Your task to perform on an android device: turn off picture-in-picture Image 0: 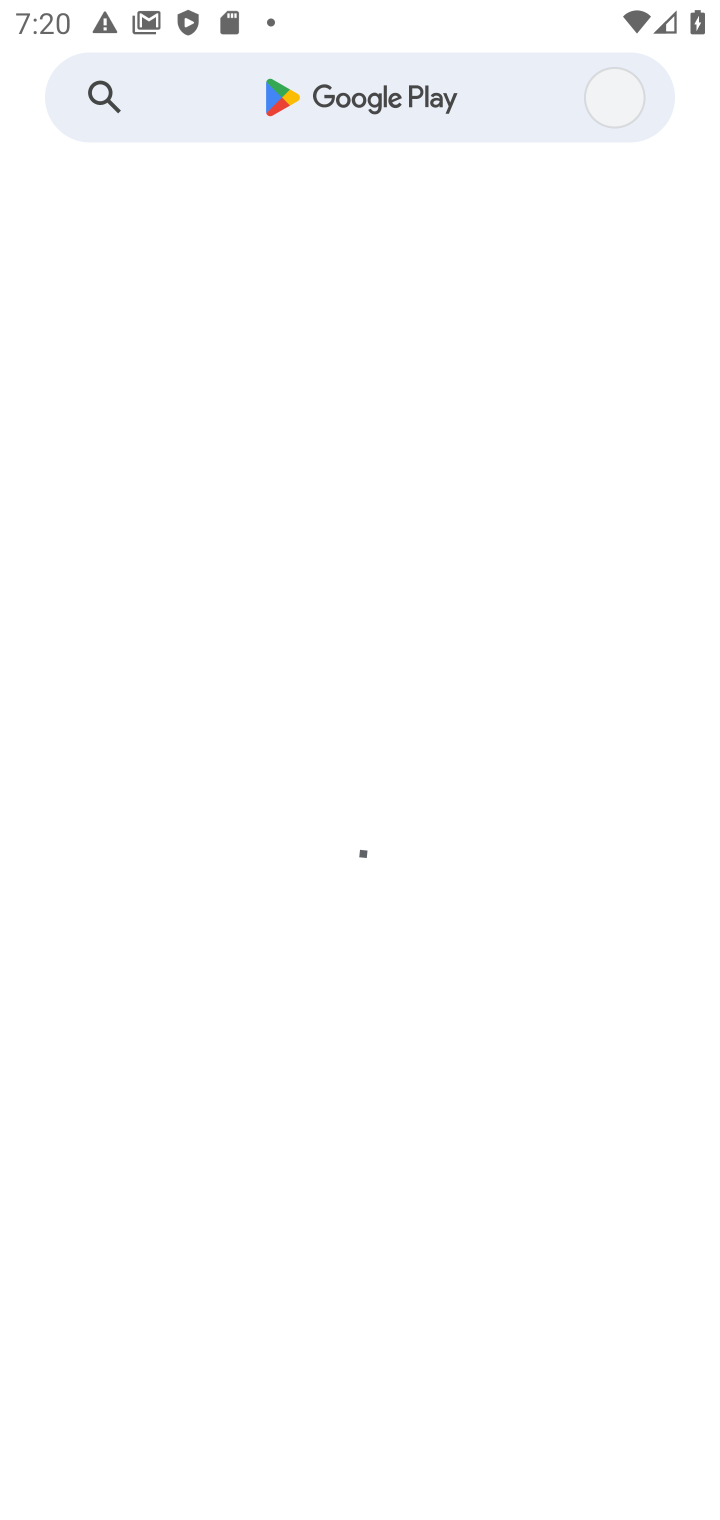
Step 0: press home button
Your task to perform on an android device: turn off picture-in-picture Image 1: 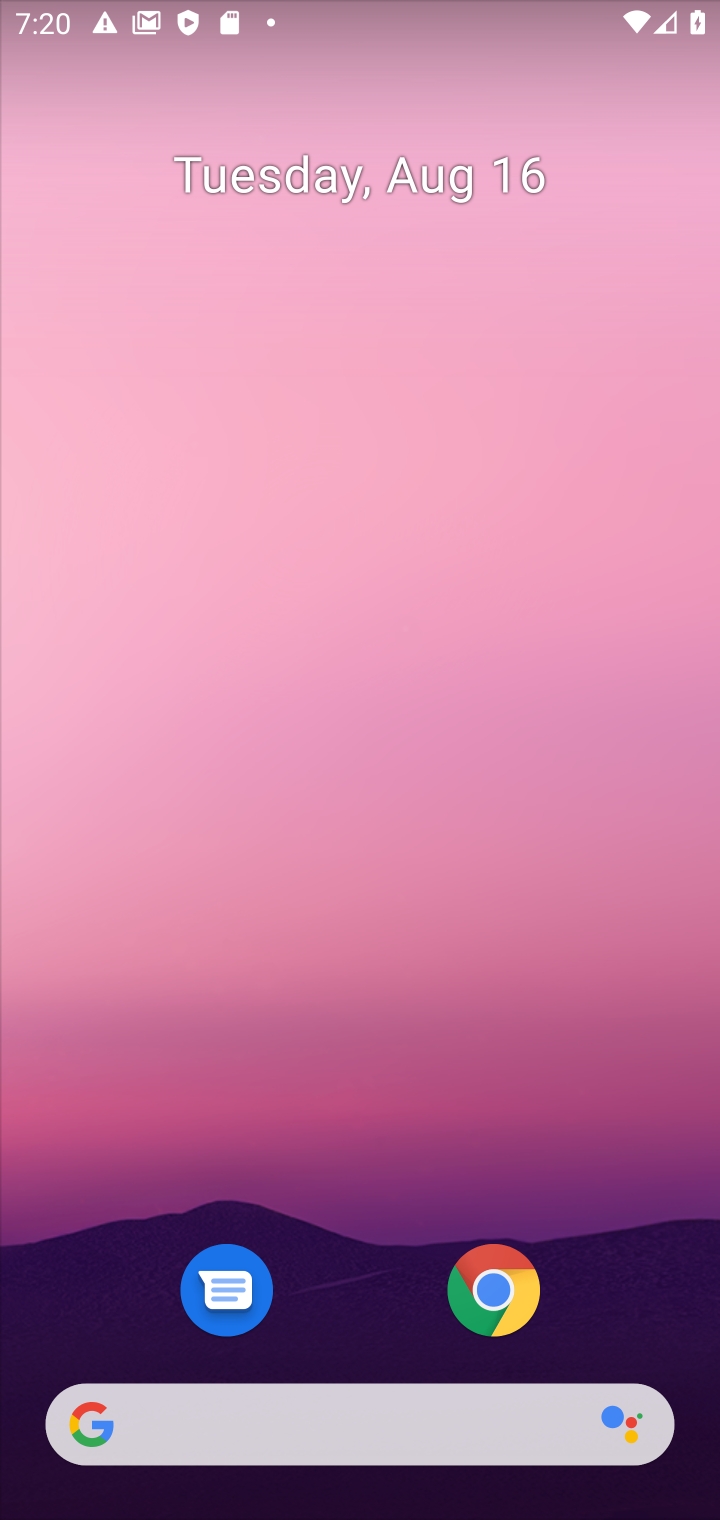
Step 1: drag from (344, 1412) to (306, 204)
Your task to perform on an android device: turn off picture-in-picture Image 2: 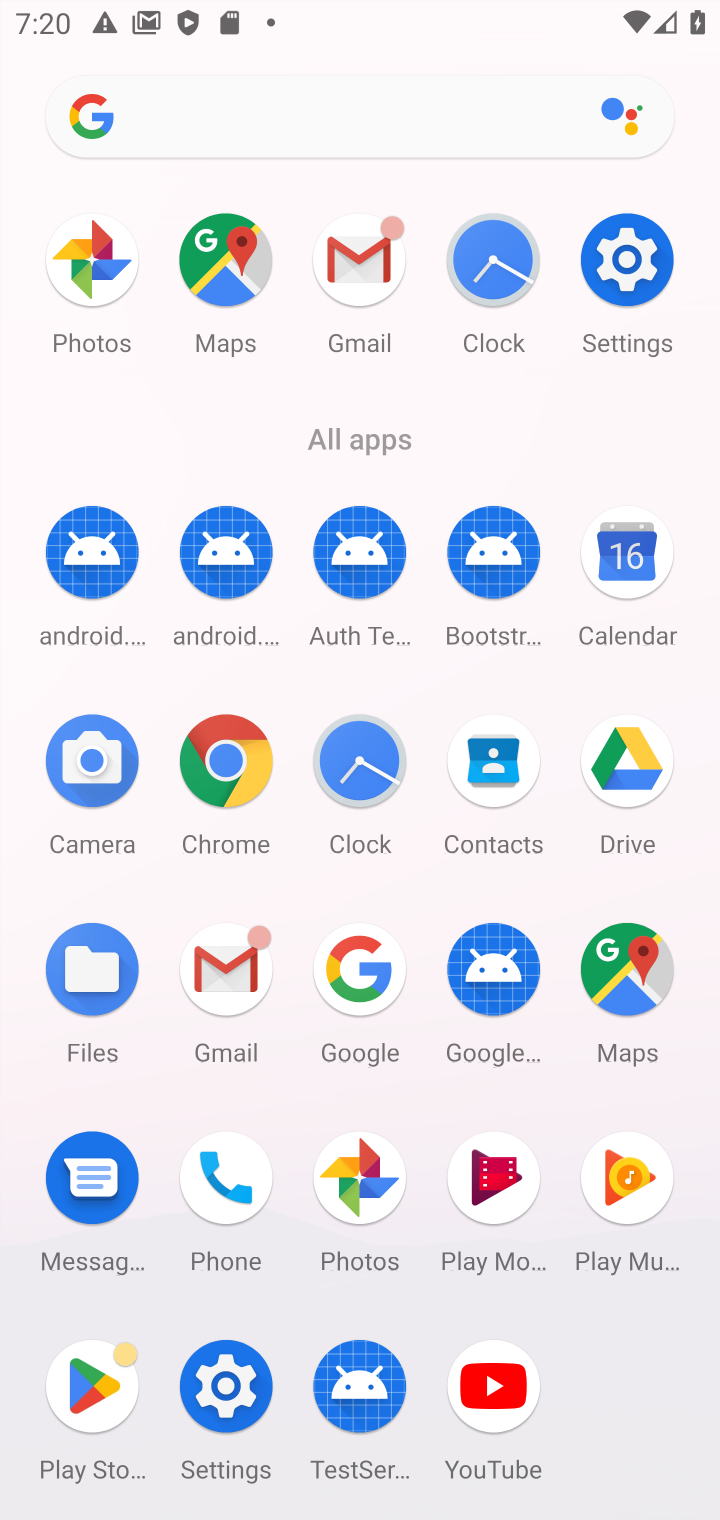
Step 2: drag from (637, 259) to (508, 879)
Your task to perform on an android device: turn off picture-in-picture Image 3: 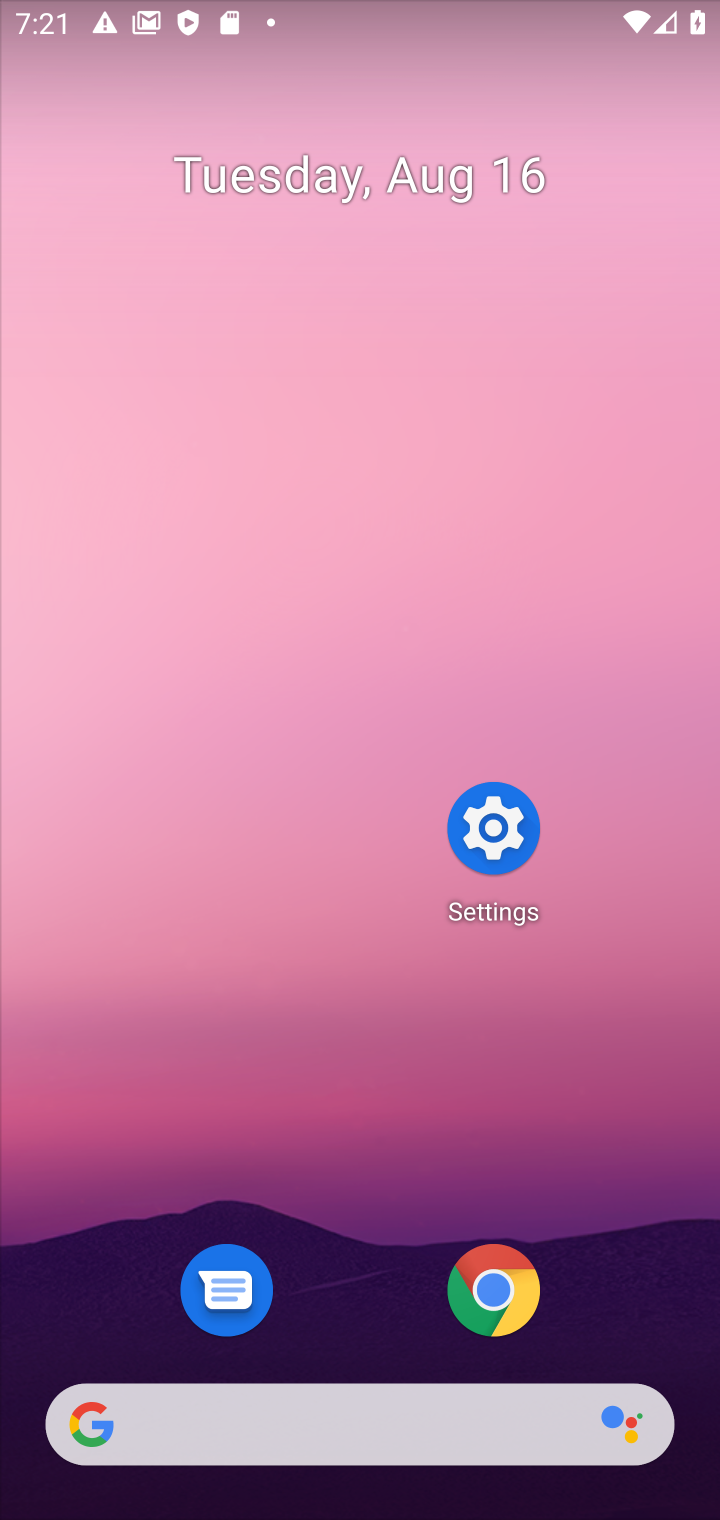
Step 3: click (485, 1274)
Your task to perform on an android device: turn off picture-in-picture Image 4: 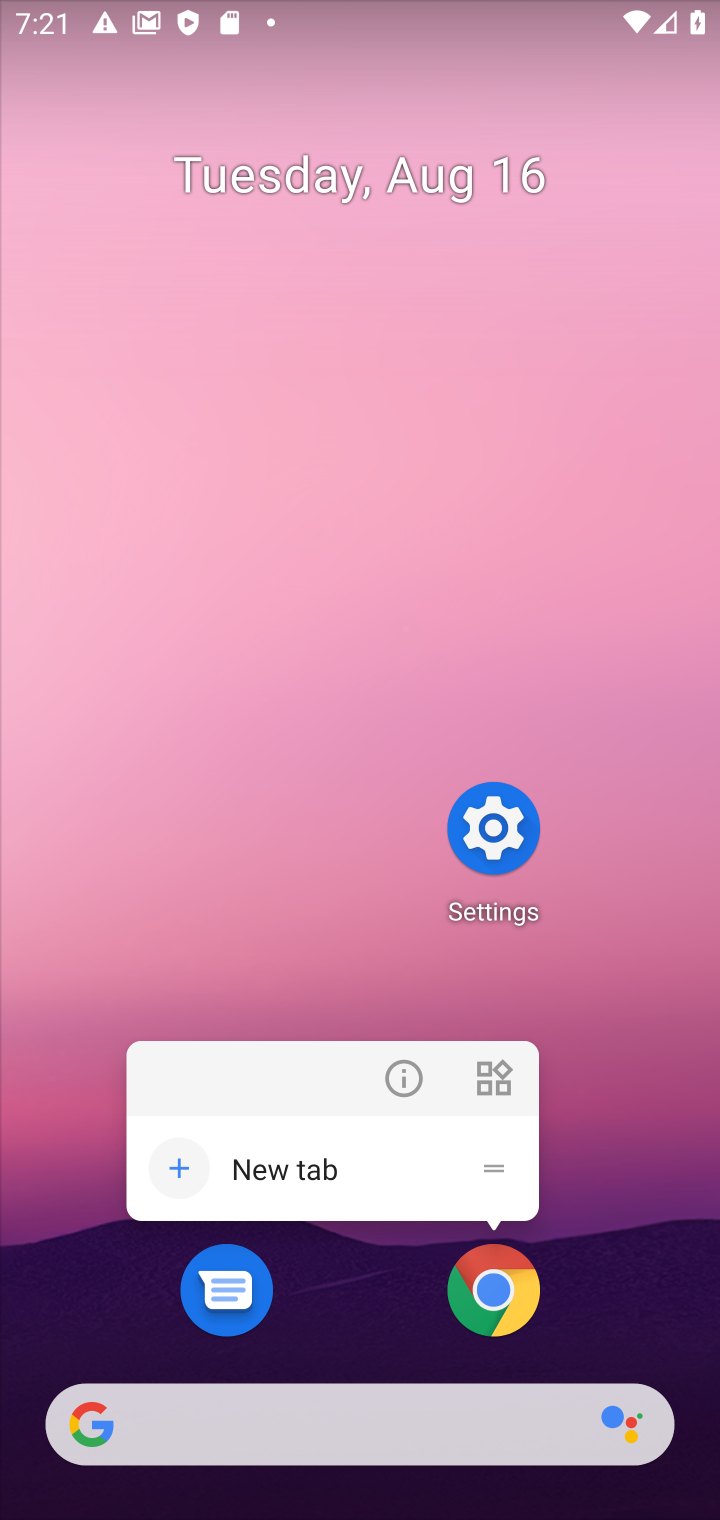
Step 4: click (414, 1073)
Your task to perform on an android device: turn off picture-in-picture Image 5: 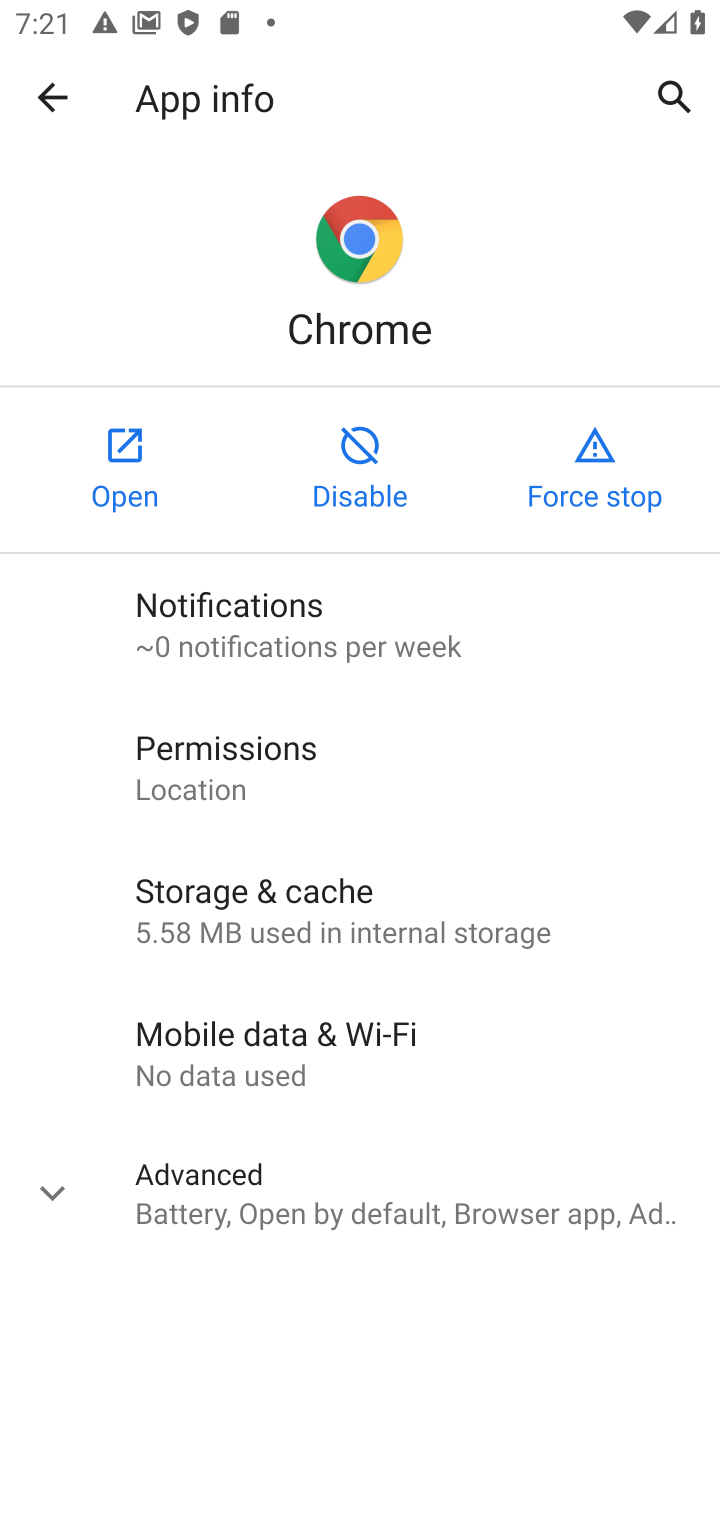
Step 5: click (181, 1204)
Your task to perform on an android device: turn off picture-in-picture Image 6: 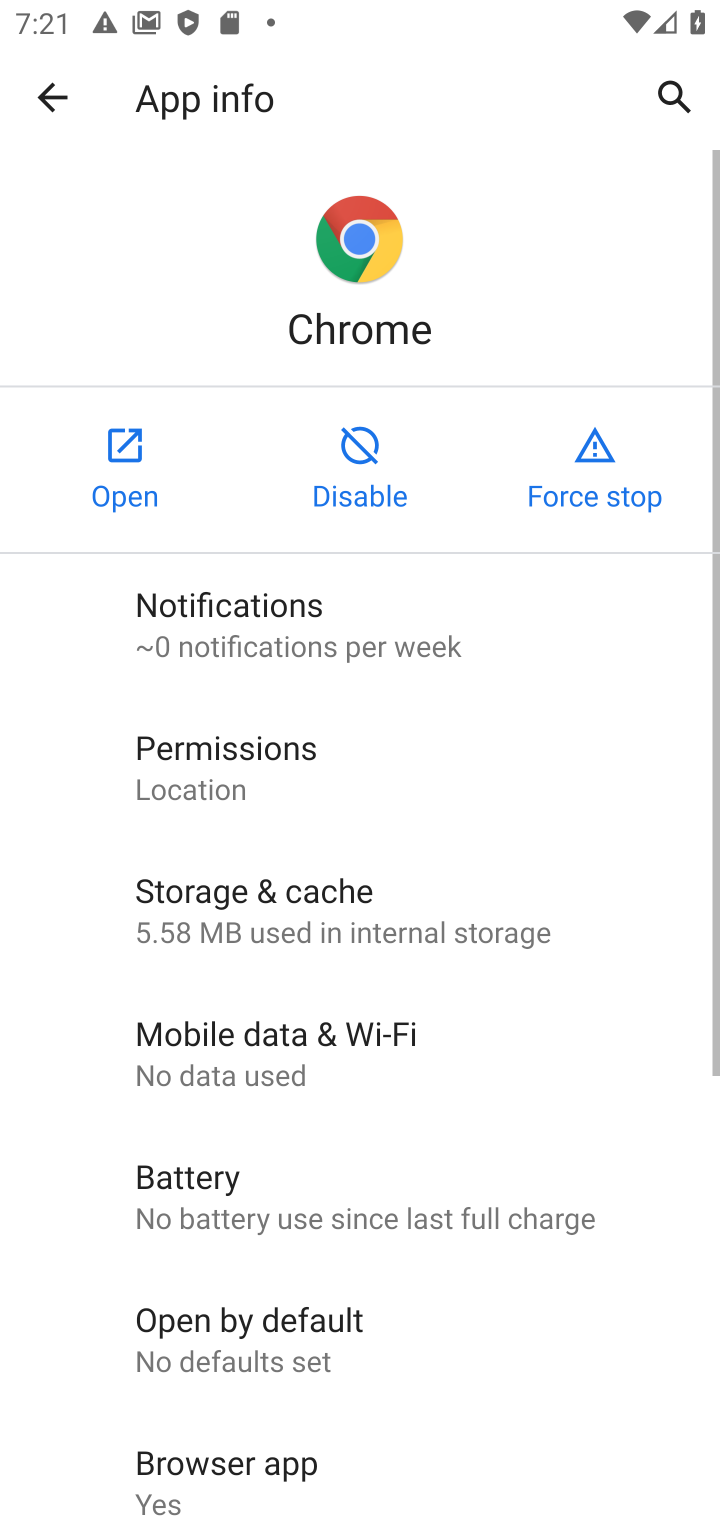
Step 6: drag from (335, 1394) to (522, 400)
Your task to perform on an android device: turn off picture-in-picture Image 7: 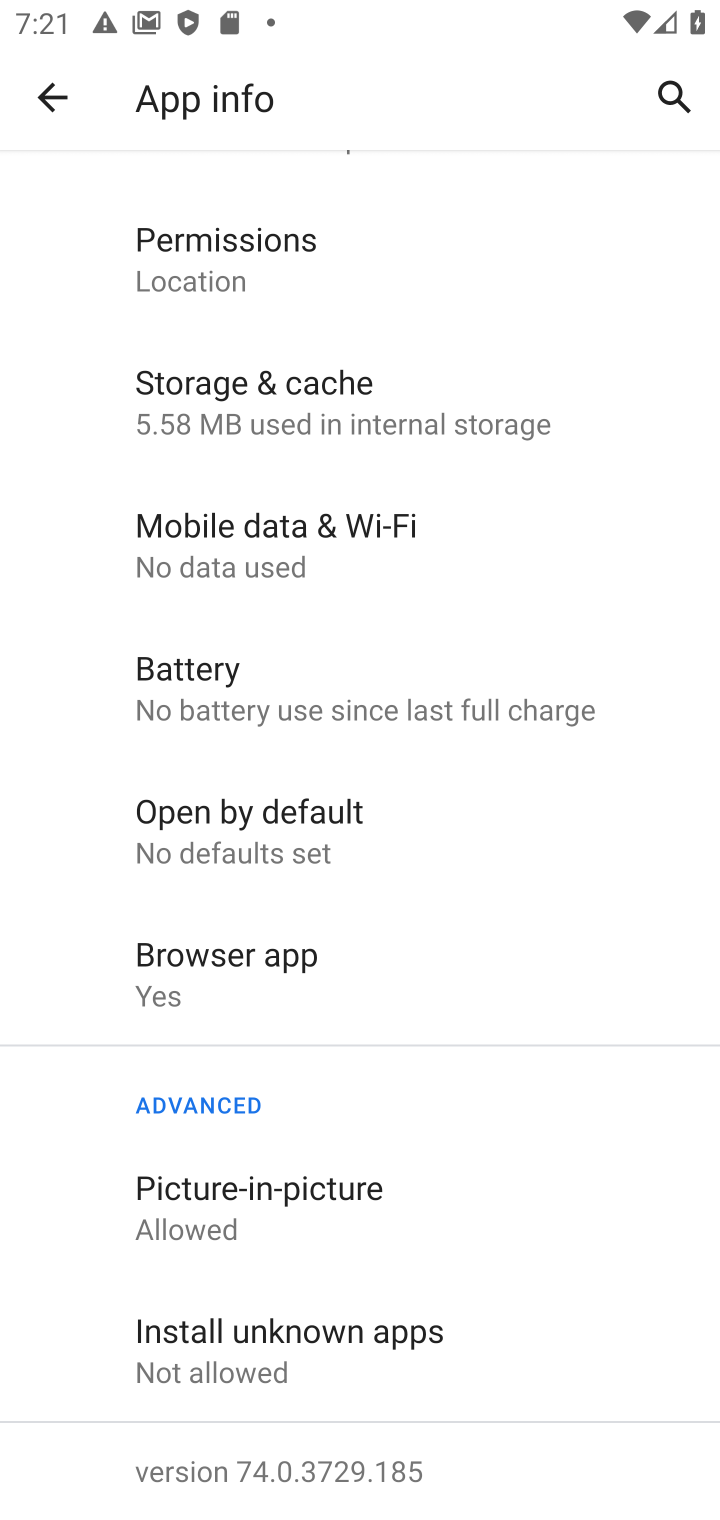
Step 7: click (193, 1214)
Your task to perform on an android device: turn off picture-in-picture Image 8: 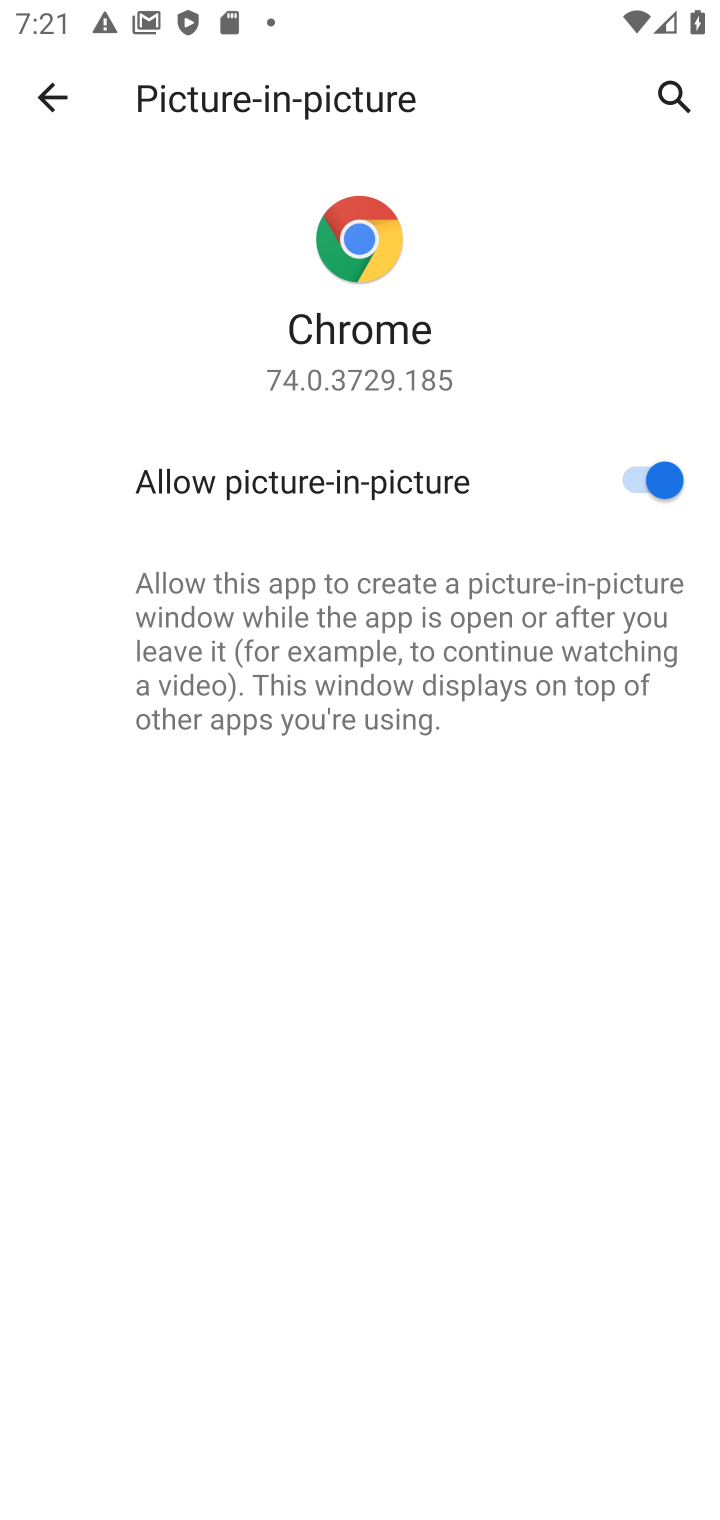
Step 8: click (636, 476)
Your task to perform on an android device: turn off picture-in-picture Image 9: 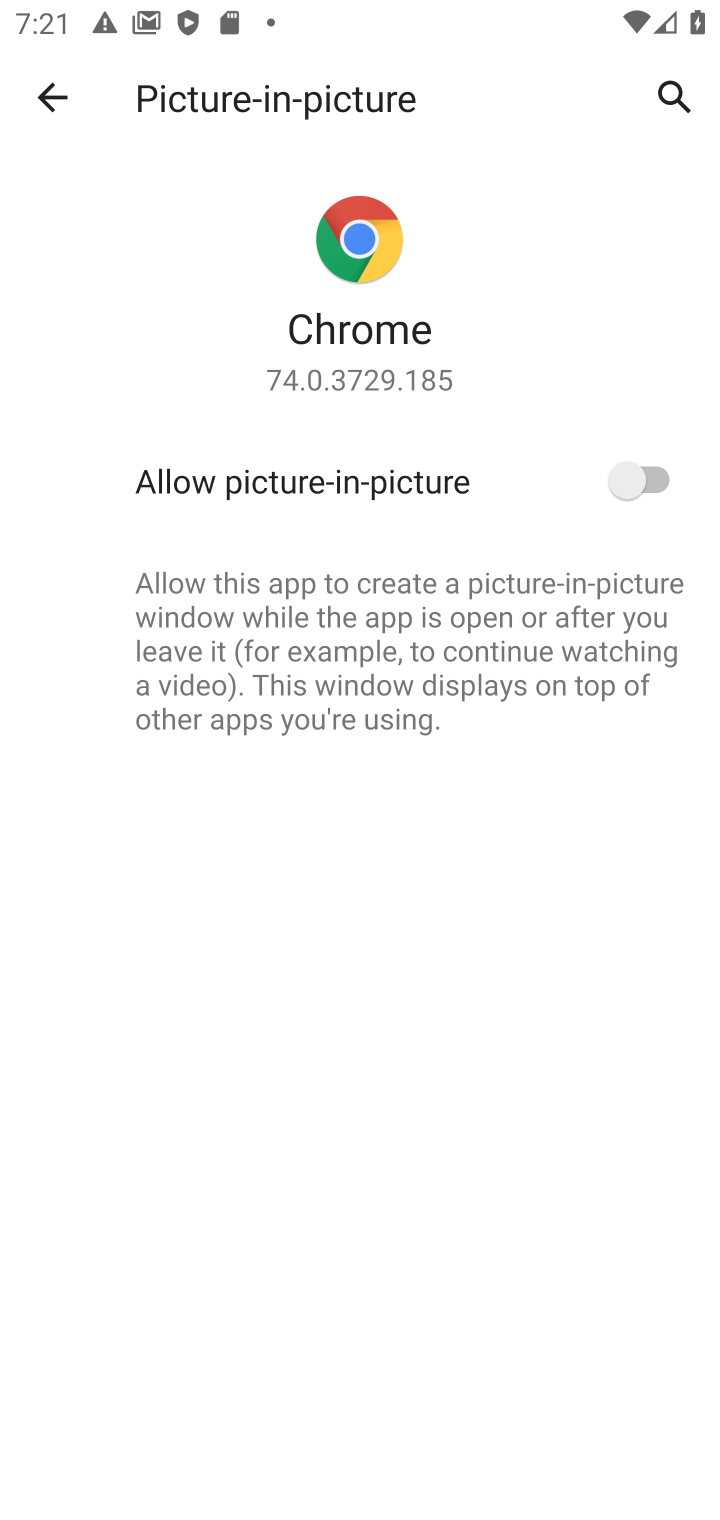
Step 9: task complete